Your task to perform on an android device: open app "Nova Launcher" (install if not already installed), go to login, and select forgot password Image 0: 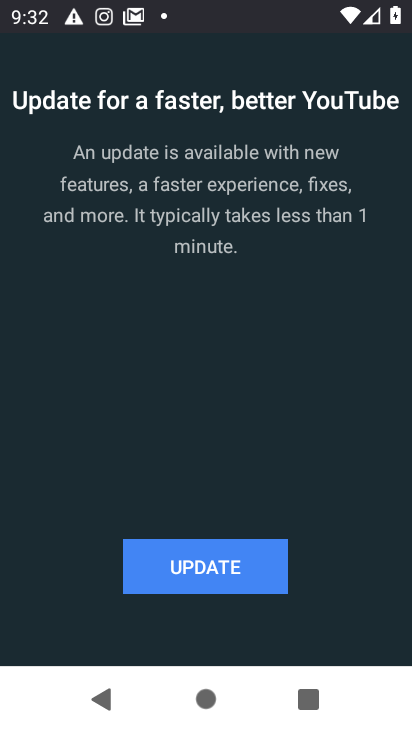
Step 0: press home button
Your task to perform on an android device: open app "Nova Launcher" (install if not already installed), go to login, and select forgot password Image 1: 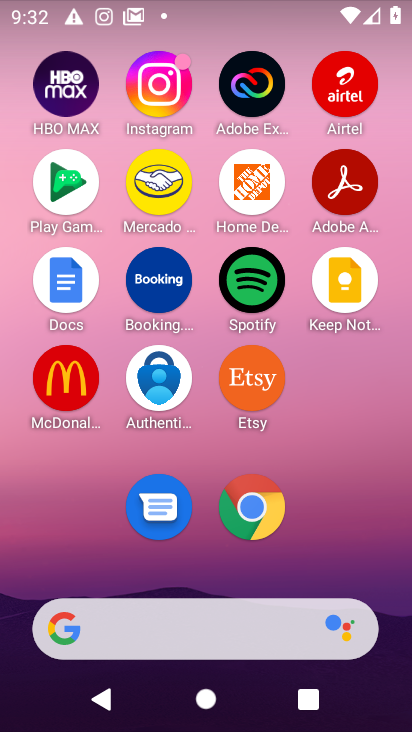
Step 1: drag from (197, 484) to (196, 154)
Your task to perform on an android device: open app "Nova Launcher" (install if not already installed), go to login, and select forgot password Image 2: 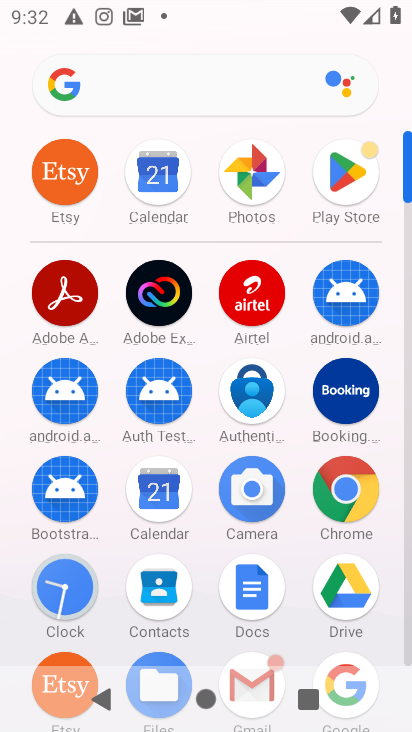
Step 2: click (344, 179)
Your task to perform on an android device: open app "Nova Launcher" (install if not already installed), go to login, and select forgot password Image 3: 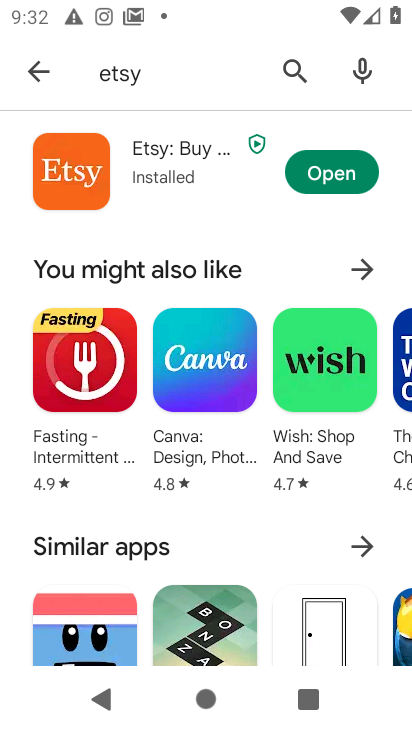
Step 3: click (41, 71)
Your task to perform on an android device: open app "Nova Launcher" (install if not already installed), go to login, and select forgot password Image 4: 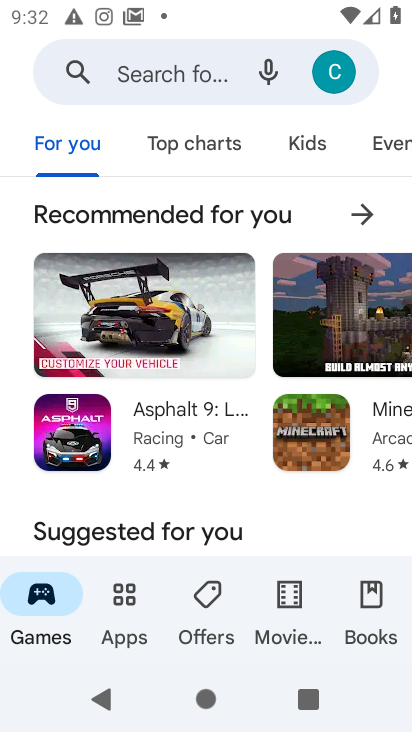
Step 4: click (169, 80)
Your task to perform on an android device: open app "Nova Launcher" (install if not already installed), go to login, and select forgot password Image 5: 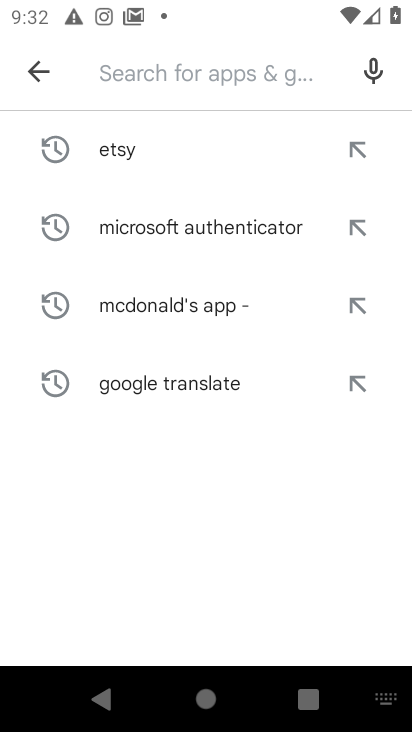
Step 5: type "Nova Launcher"
Your task to perform on an android device: open app "Nova Launcher" (install if not already installed), go to login, and select forgot password Image 6: 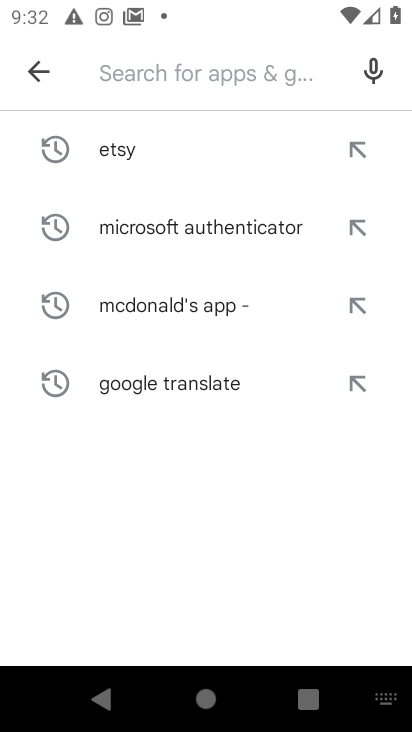
Step 6: click (151, 70)
Your task to perform on an android device: open app "Nova Launcher" (install if not already installed), go to login, and select forgot password Image 7: 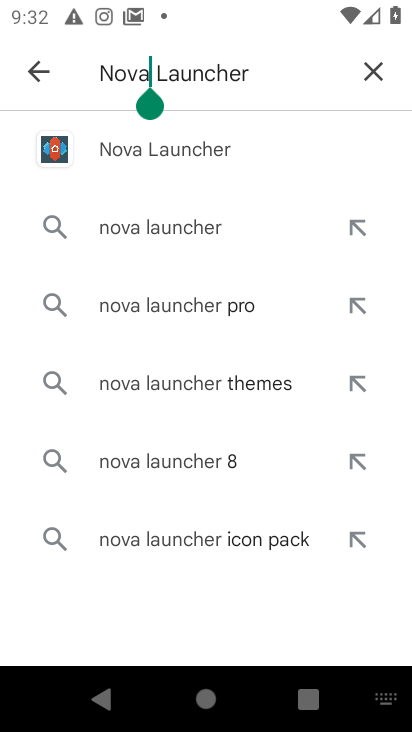
Step 7: click (145, 155)
Your task to perform on an android device: open app "Nova Launcher" (install if not already installed), go to login, and select forgot password Image 8: 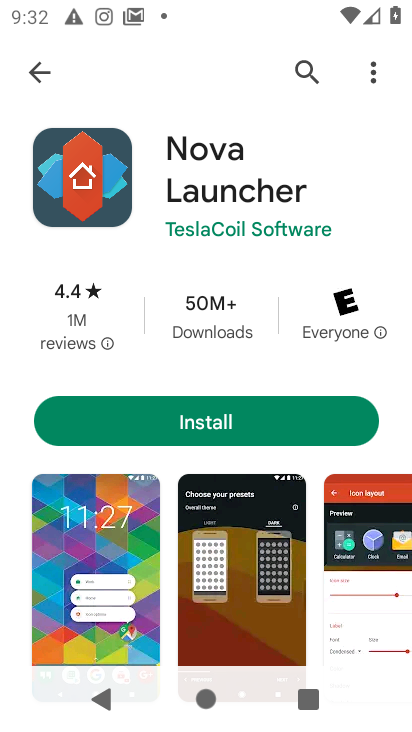
Step 8: click (204, 416)
Your task to perform on an android device: open app "Nova Launcher" (install if not already installed), go to login, and select forgot password Image 9: 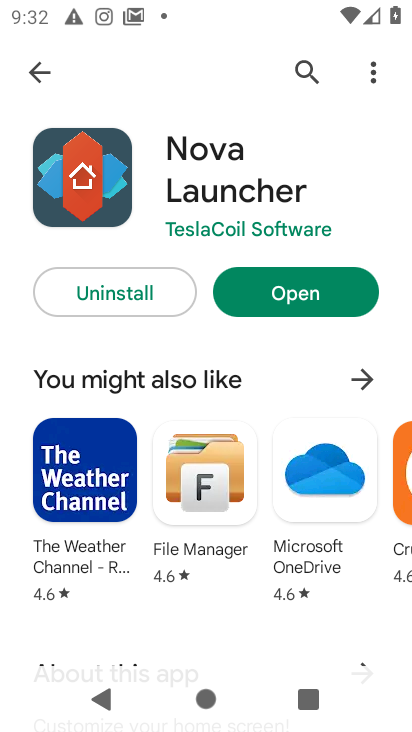
Step 9: click (281, 295)
Your task to perform on an android device: open app "Nova Launcher" (install if not already installed), go to login, and select forgot password Image 10: 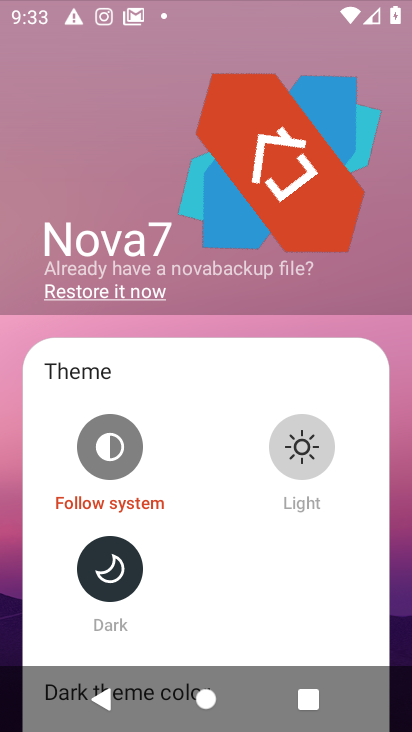
Step 10: task complete